Your task to perform on an android device: Open the Play Movies app and select the watchlist tab. Image 0: 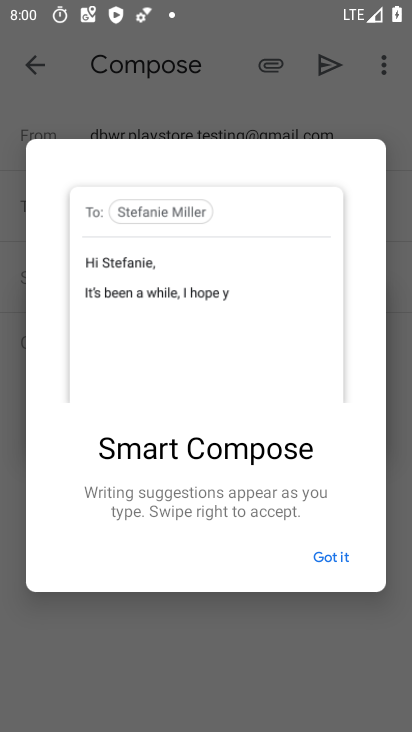
Step 0: press home button
Your task to perform on an android device: Open the Play Movies app and select the watchlist tab. Image 1: 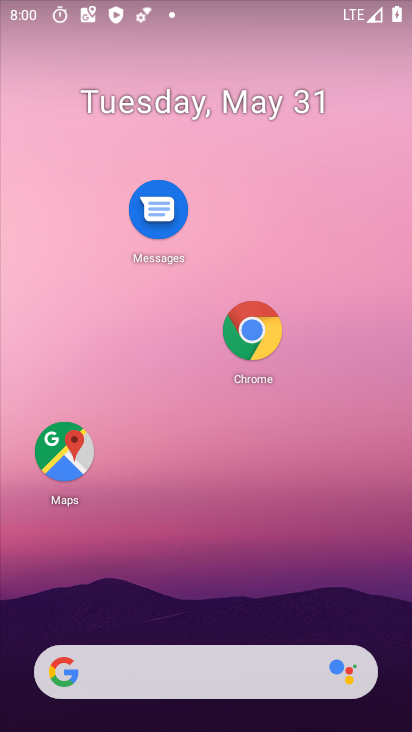
Step 1: drag from (192, 576) to (237, 111)
Your task to perform on an android device: Open the Play Movies app and select the watchlist tab. Image 2: 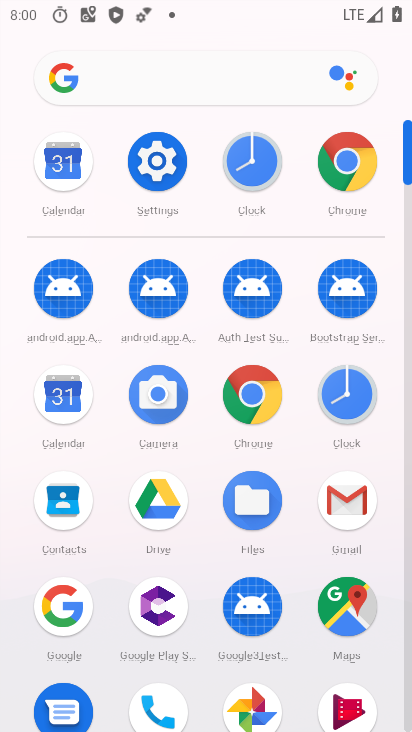
Step 2: click (333, 698)
Your task to perform on an android device: Open the Play Movies app and select the watchlist tab. Image 3: 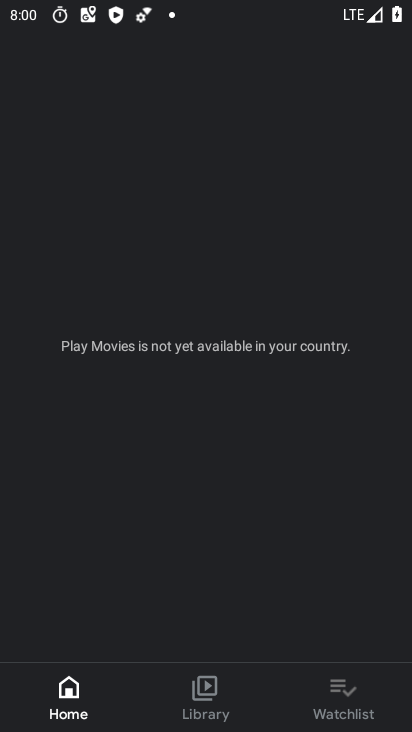
Step 3: click (357, 696)
Your task to perform on an android device: Open the Play Movies app and select the watchlist tab. Image 4: 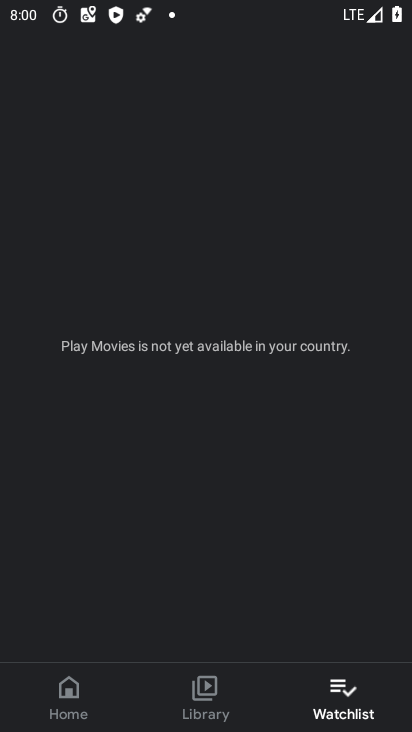
Step 4: task complete